Your task to perform on an android device: open wifi settings Image 0: 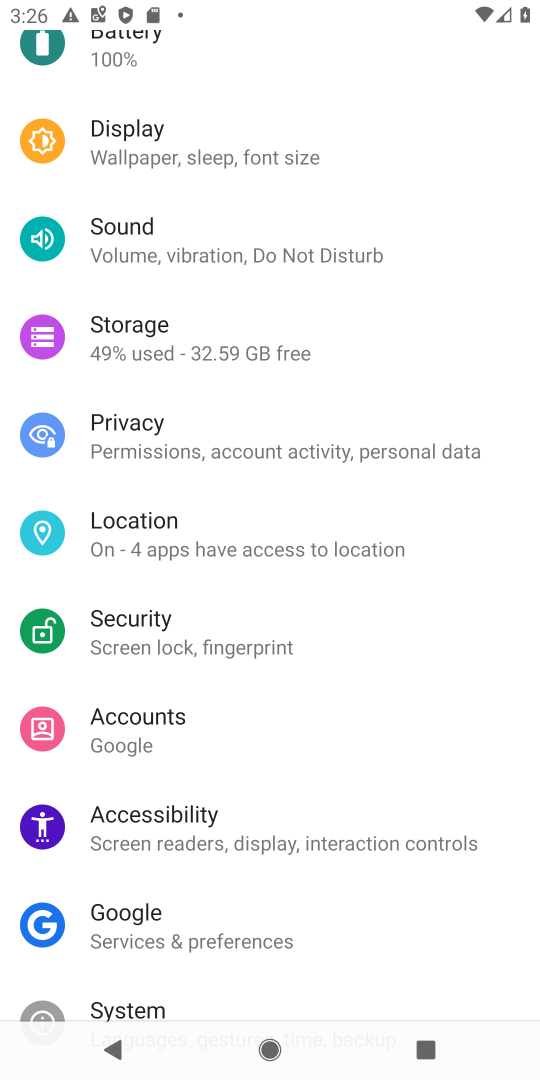
Step 0: press back button
Your task to perform on an android device: open wifi settings Image 1: 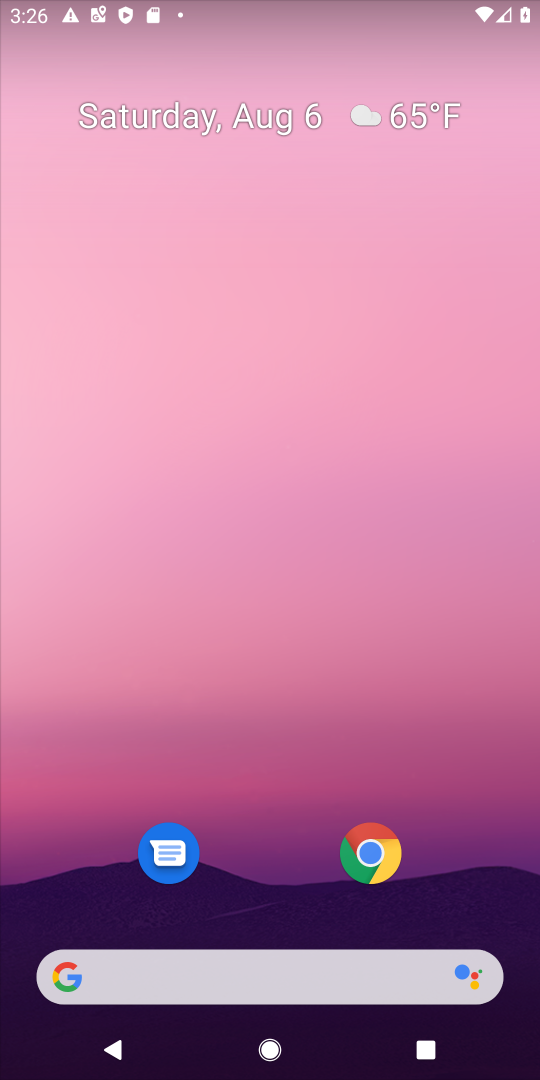
Step 1: drag from (137, 113) to (254, 729)
Your task to perform on an android device: open wifi settings Image 2: 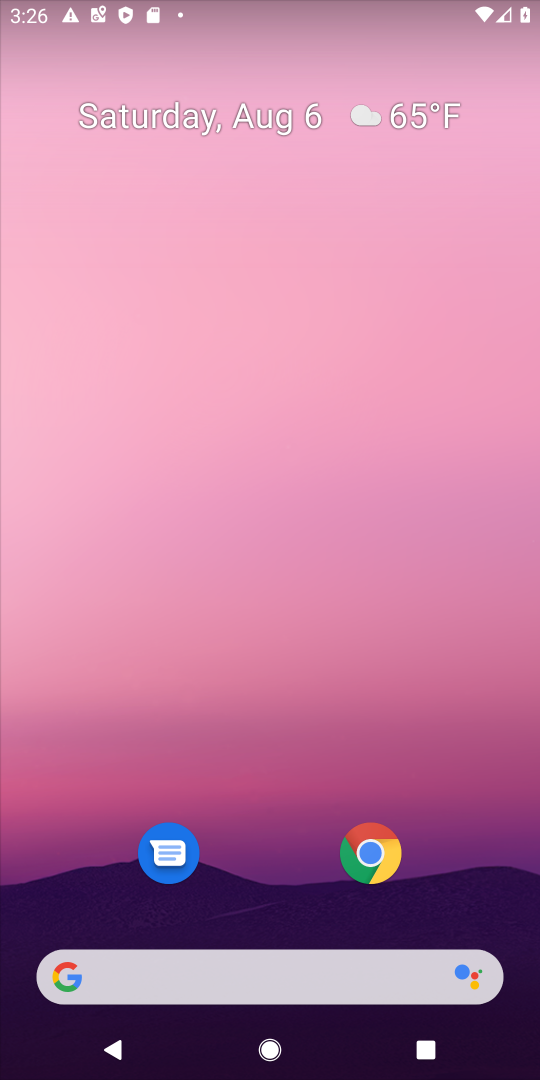
Step 2: drag from (86, 16) to (286, 753)
Your task to perform on an android device: open wifi settings Image 3: 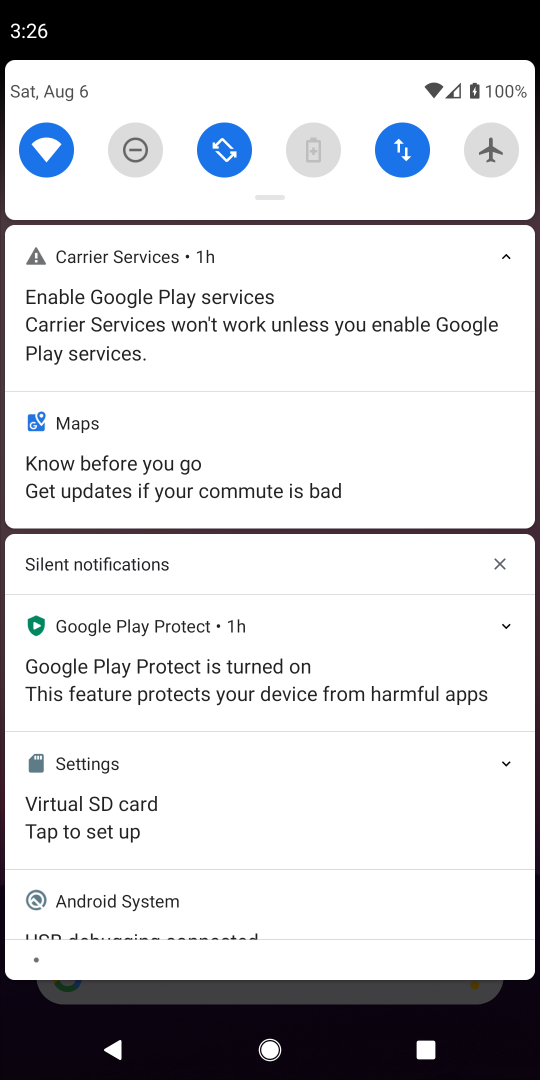
Step 3: click (37, 148)
Your task to perform on an android device: open wifi settings Image 4: 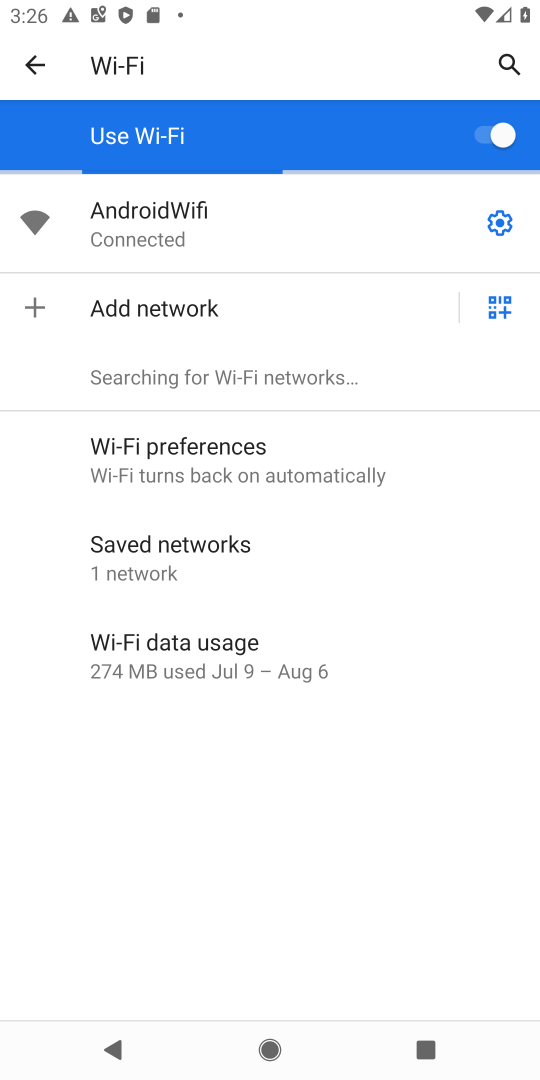
Step 4: task complete